Your task to perform on an android device: turn on bluetooth scan Image 0: 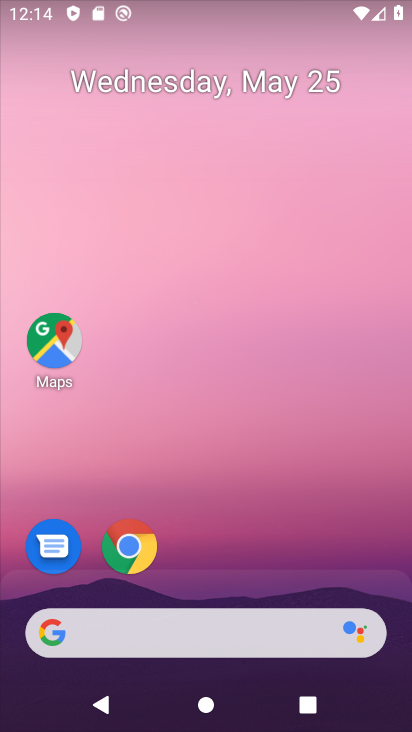
Step 0: drag from (257, 604) to (285, 84)
Your task to perform on an android device: turn on bluetooth scan Image 1: 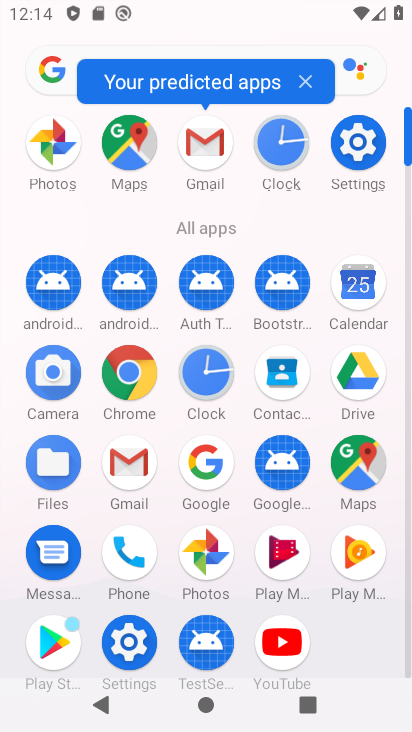
Step 1: click (345, 159)
Your task to perform on an android device: turn on bluetooth scan Image 2: 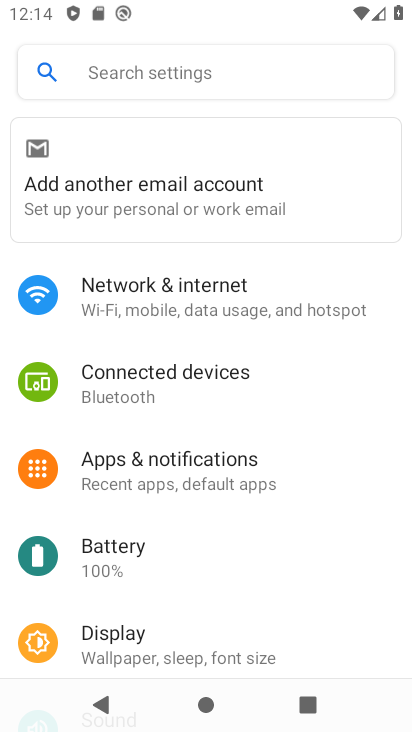
Step 2: drag from (206, 645) to (233, 344)
Your task to perform on an android device: turn on bluetooth scan Image 3: 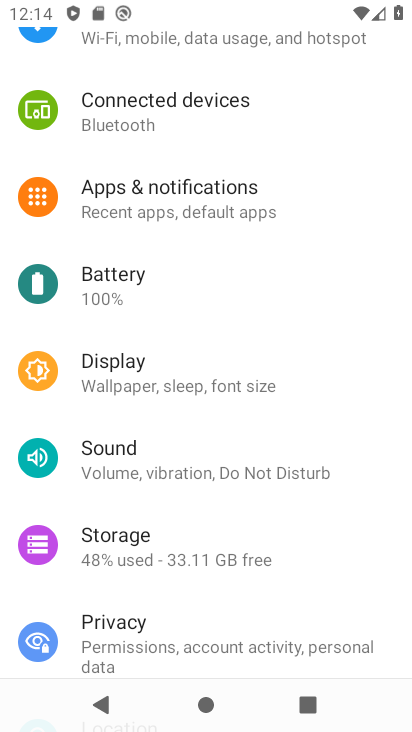
Step 3: drag from (282, 566) to (291, 228)
Your task to perform on an android device: turn on bluetooth scan Image 4: 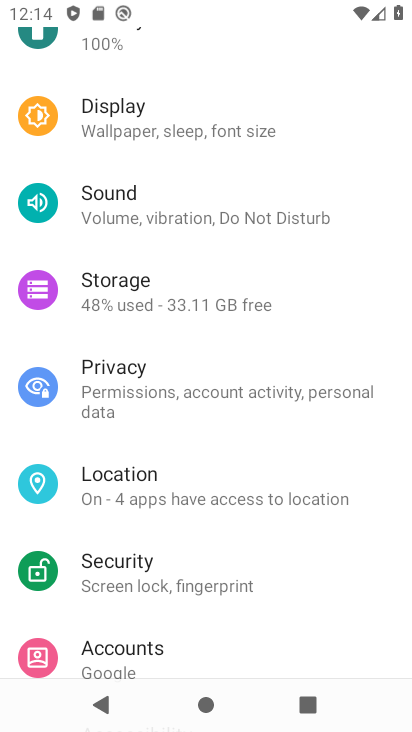
Step 4: drag from (243, 580) to (243, 363)
Your task to perform on an android device: turn on bluetooth scan Image 5: 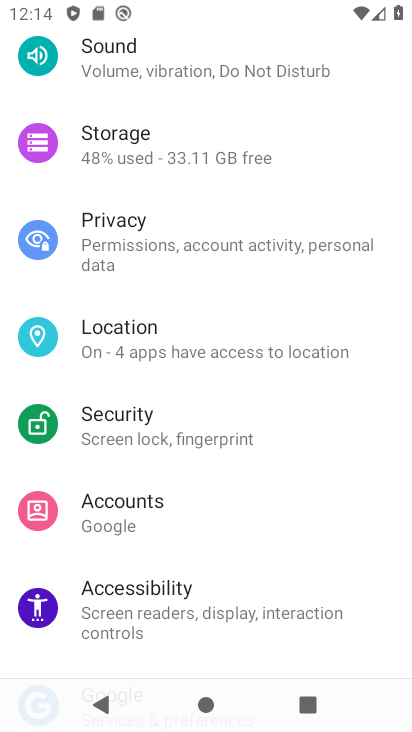
Step 5: click (221, 347)
Your task to perform on an android device: turn on bluetooth scan Image 6: 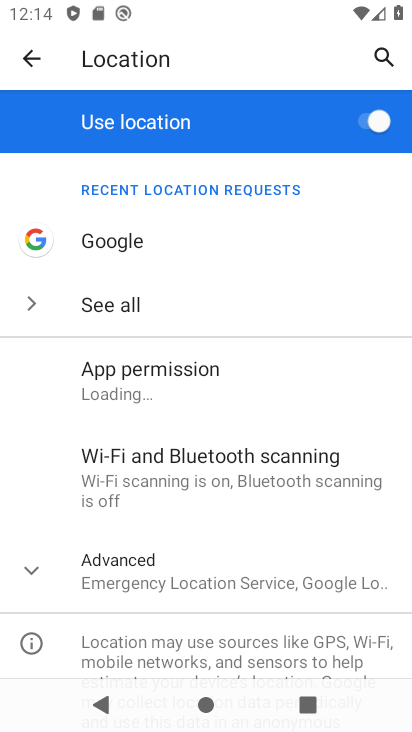
Step 6: click (219, 563)
Your task to perform on an android device: turn on bluetooth scan Image 7: 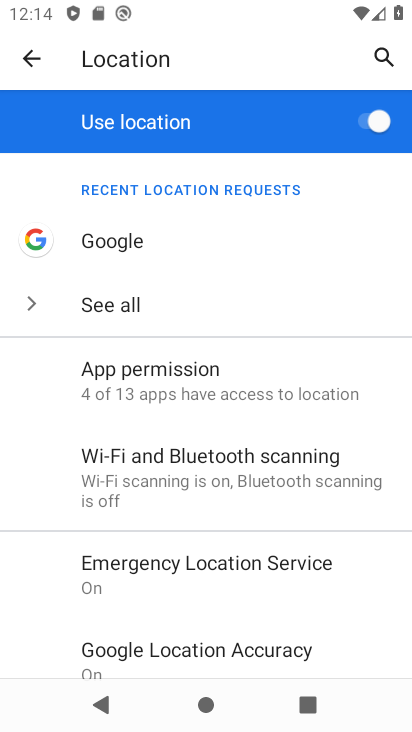
Step 7: click (212, 451)
Your task to perform on an android device: turn on bluetooth scan Image 8: 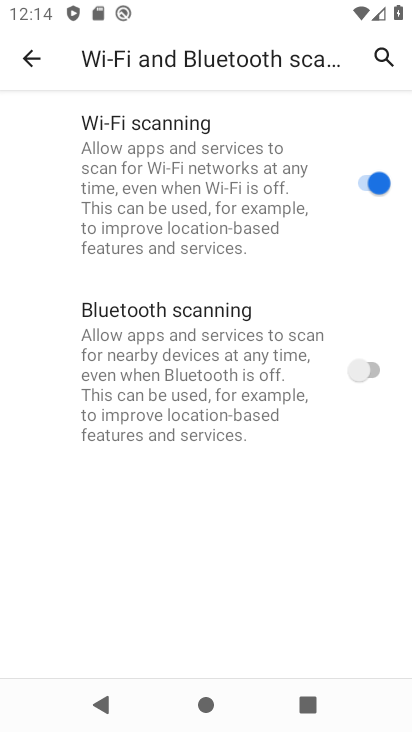
Step 8: click (311, 387)
Your task to perform on an android device: turn on bluetooth scan Image 9: 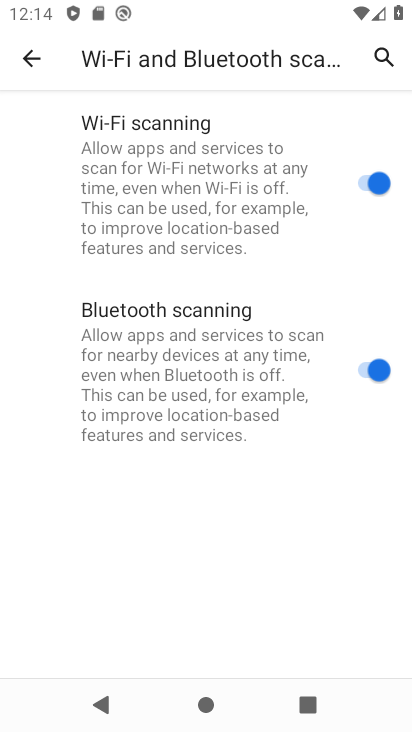
Step 9: task complete